Your task to perform on an android device: toggle javascript in the chrome app Image 0: 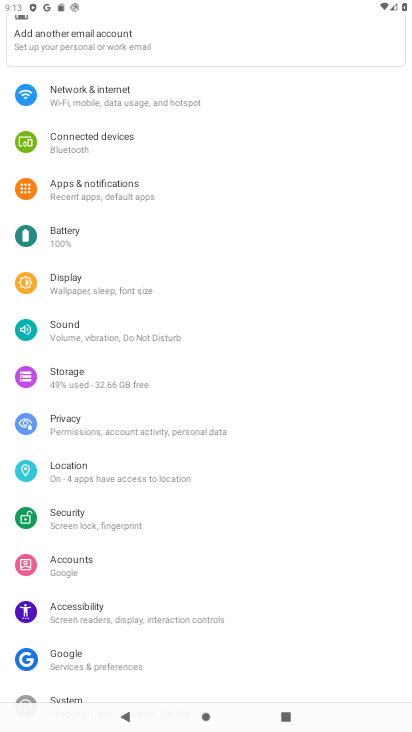
Step 0: press home button
Your task to perform on an android device: toggle javascript in the chrome app Image 1: 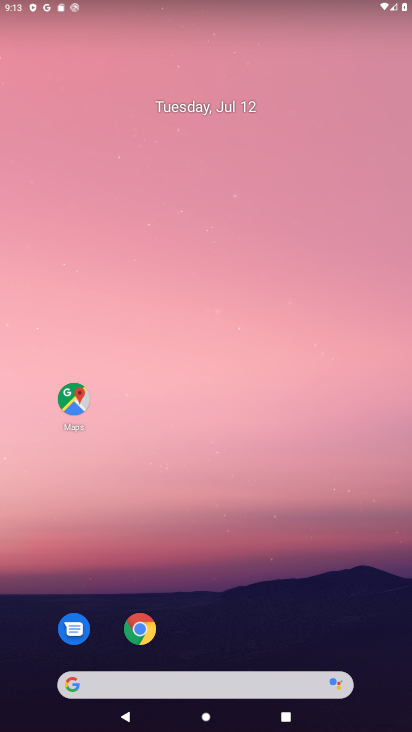
Step 1: drag from (303, 648) to (214, 52)
Your task to perform on an android device: toggle javascript in the chrome app Image 2: 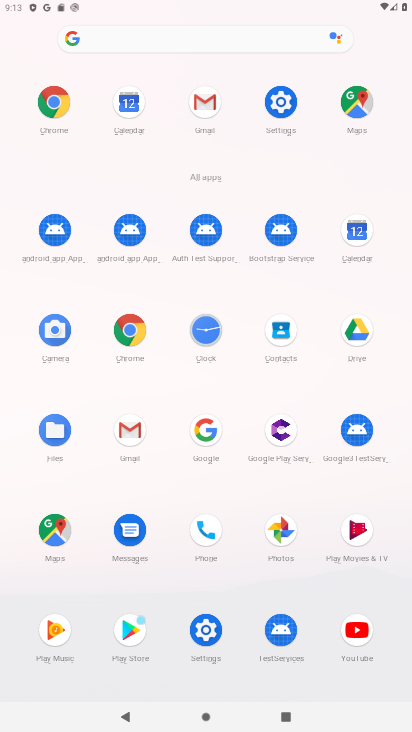
Step 2: click (59, 126)
Your task to perform on an android device: toggle javascript in the chrome app Image 3: 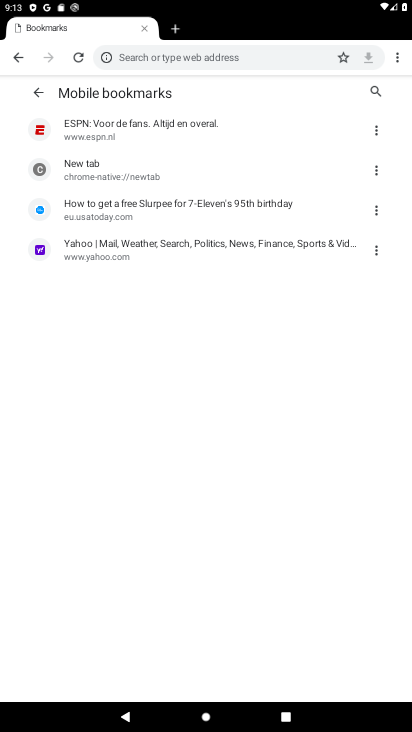
Step 3: click (401, 53)
Your task to perform on an android device: toggle javascript in the chrome app Image 4: 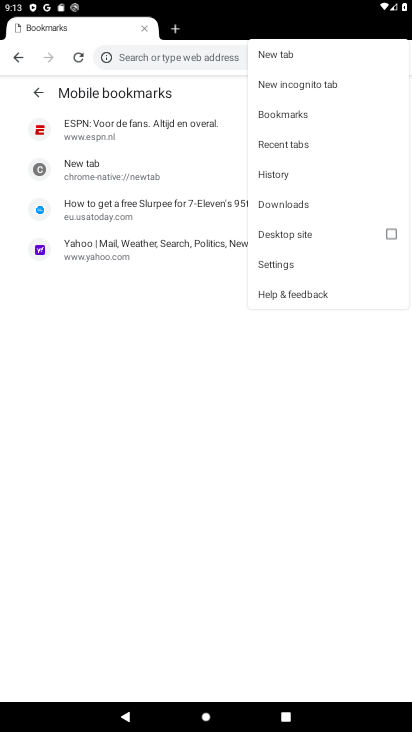
Step 4: click (314, 268)
Your task to perform on an android device: toggle javascript in the chrome app Image 5: 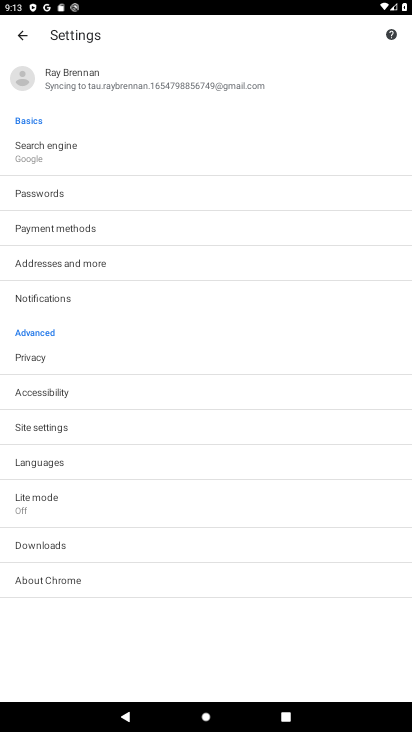
Step 5: click (151, 425)
Your task to perform on an android device: toggle javascript in the chrome app Image 6: 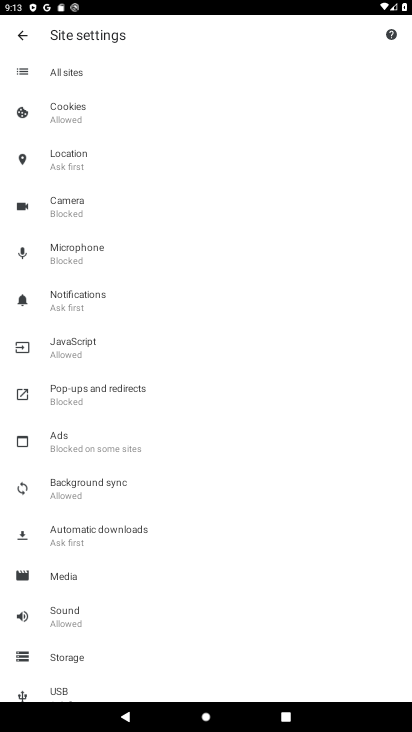
Step 6: click (106, 351)
Your task to perform on an android device: toggle javascript in the chrome app Image 7: 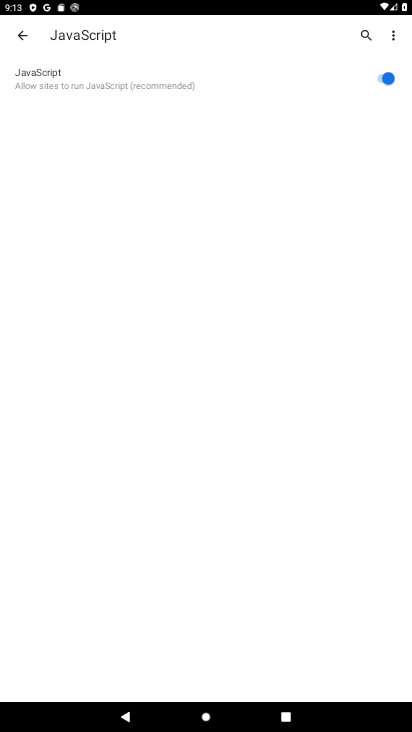
Step 7: click (381, 74)
Your task to perform on an android device: toggle javascript in the chrome app Image 8: 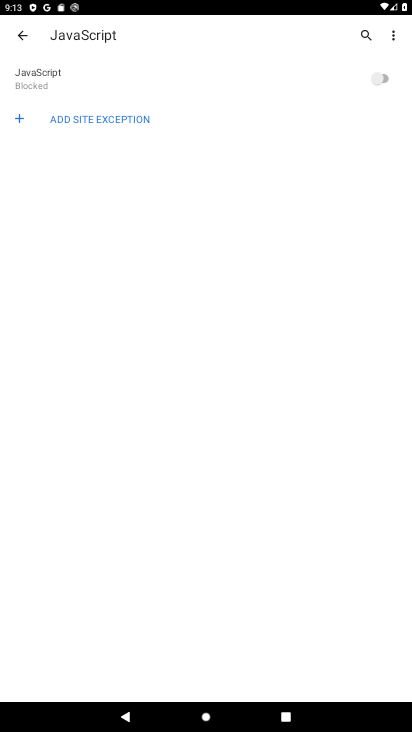
Step 8: task complete